Your task to perform on an android device: toggle priority inbox in the gmail app Image 0: 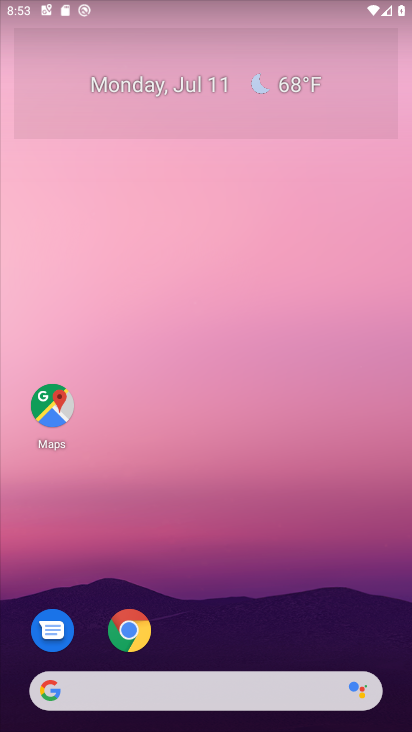
Step 0: drag from (205, 603) to (195, 0)
Your task to perform on an android device: toggle priority inbox in the gmail app Image 1: 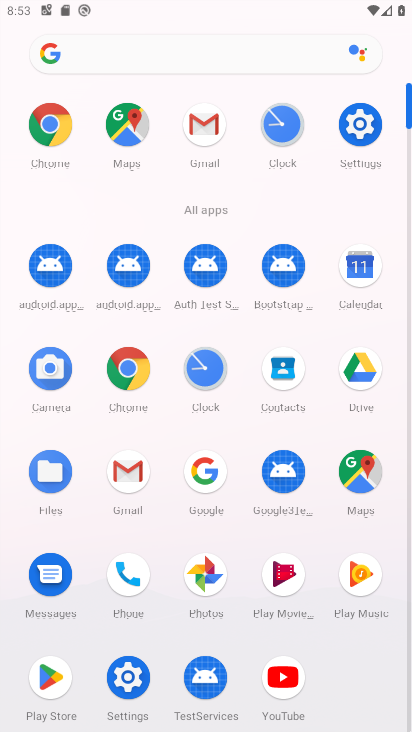
Step 1: click (123, 473)
Your task to perform on an android device: toggle priority inbox in the gmail app Image 2: 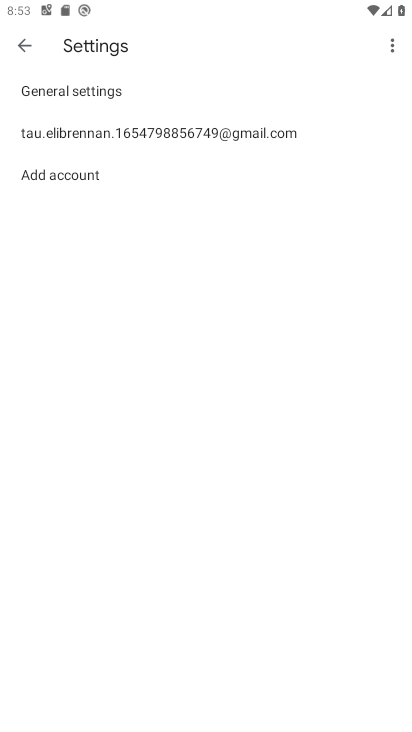
Step 2: click (100, 134)
Your task to perform on an android device: toggle priority inbox in the gmail app Image 3: 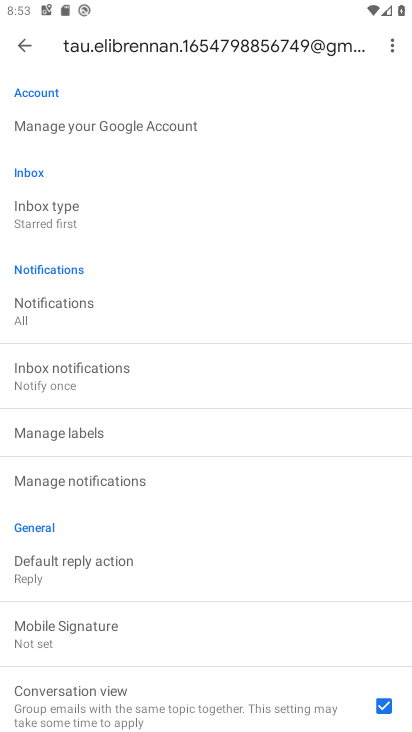
Step 3: click (71, 216)
Your task to perform on an android device: toggle priority inbox in the gmail app Image 4: 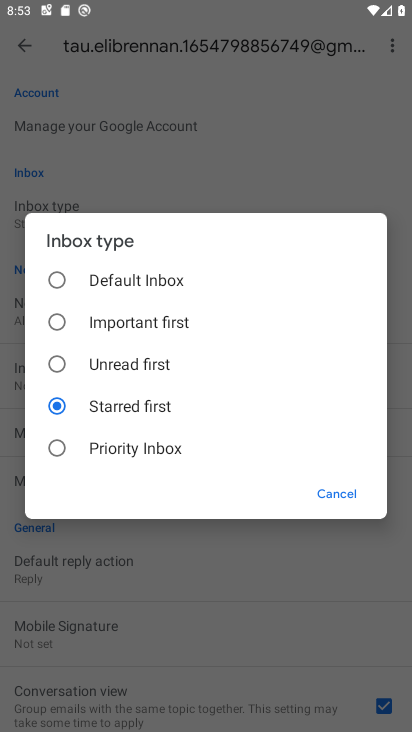
Step 4: click (109, 459)
Your task to perform on an android device: toggle priority inbox in the gmail app Image 5: 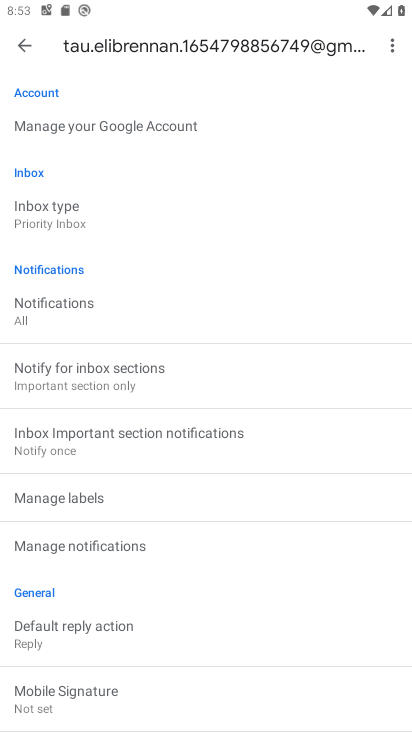
Step 5: task complete